Your task to perform on an android device: Search for seafood restaurants on Google Maps Image 0: 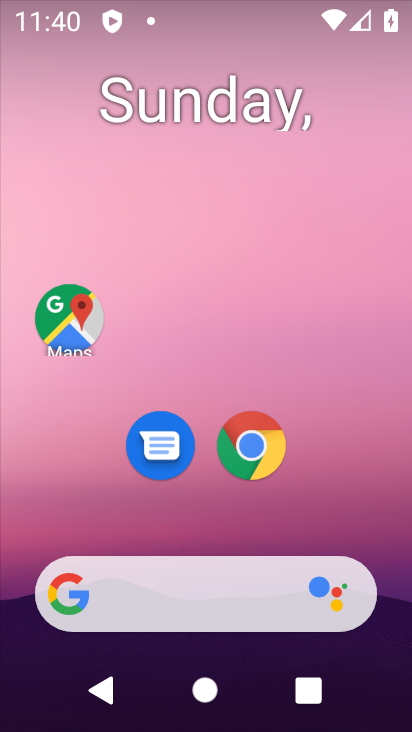
Step 0: click (58, 318)
Your task to perform on an android device: Search for seafood restaurants on Google Maps Image 1: 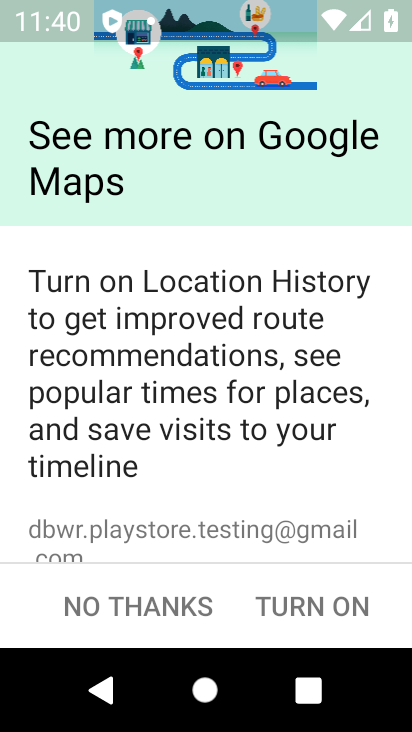
Step 1: click (311, 601)
Your task to perform on an android device: Search for seafood restaurants on Google Maps Image 2: 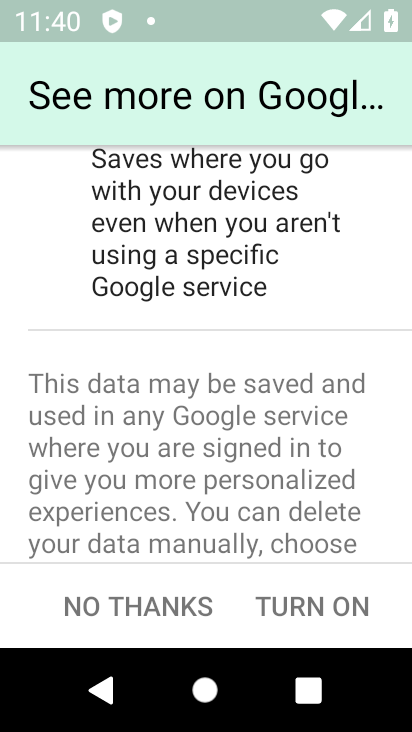
Step 2: click (314, 607)
Your task to perform on an android device: Search for seafood restaurants on Google Maps Image 3: 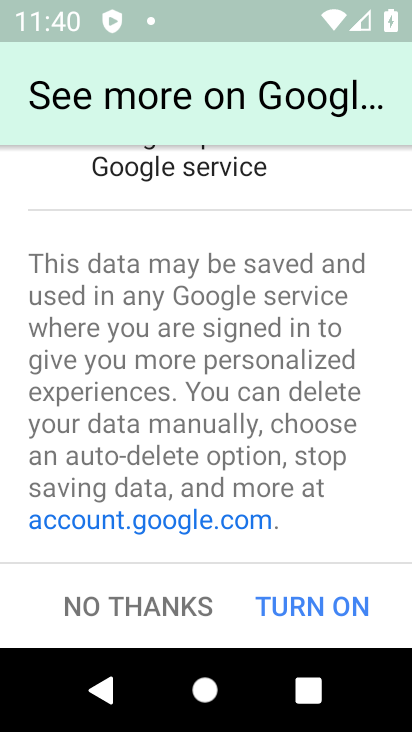
Step 3: click (312, 603)
Your task to perform on an android device: Search for seafood restaurants on Google Maps Image 4: 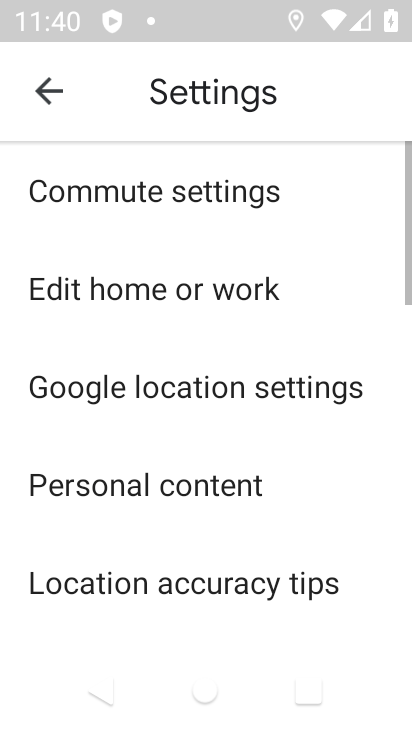
Step 4: click (46, 103)
Your task to perform on an android device: Search for seafood restaurants on Google Maps Image 5: 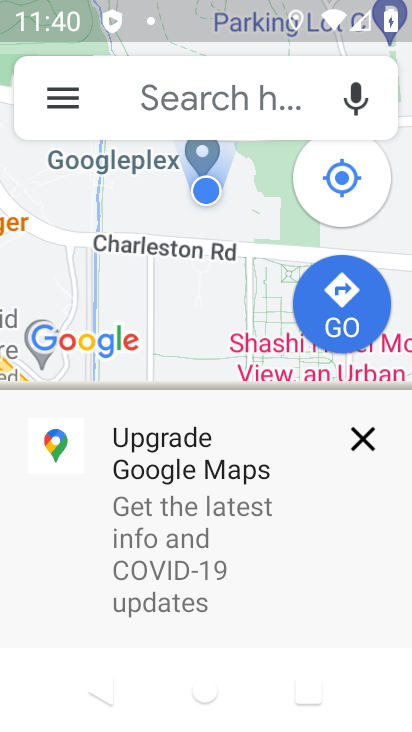
Step 5: click (177, 89)
Your task to perform on an android device: Search for seafood restaurants on Google Maps Image 6: 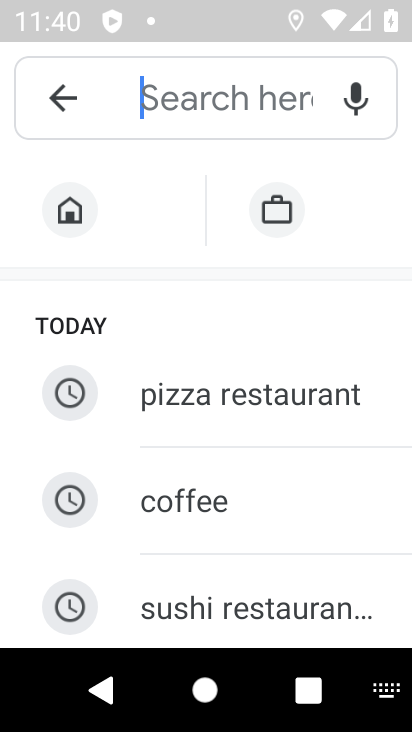
Step 6: drag from (242, 488) to (238, 243)
Your task to perform on an android device: Search for seafood restaurants on Google Maps Image 7: 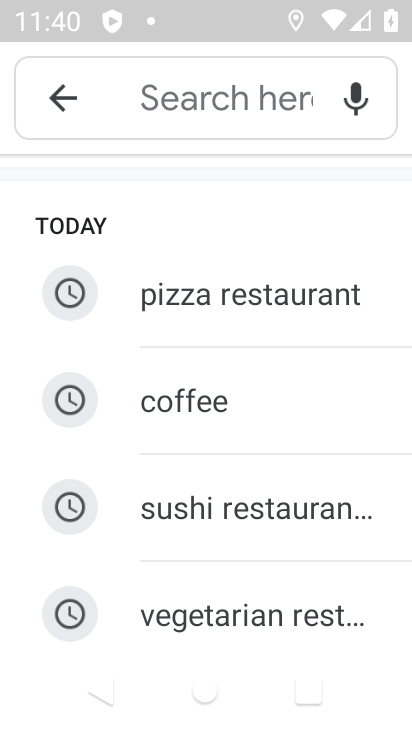
Step 7: drag from (238, 602) to (258, 307)
Your task to perform on an android device: Search for seafood restaurants on Google Maps Image 8: 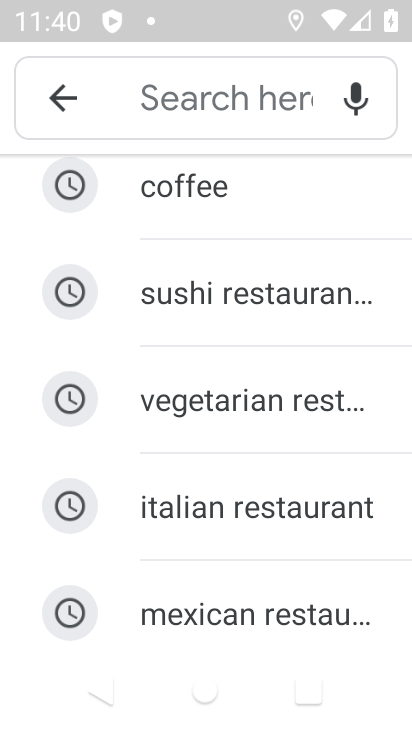
Step 8: drag from (265, 587) to (293, 277)
Your task to perform on an android device: Search for seafood restaurants on Google Maps Image 9: 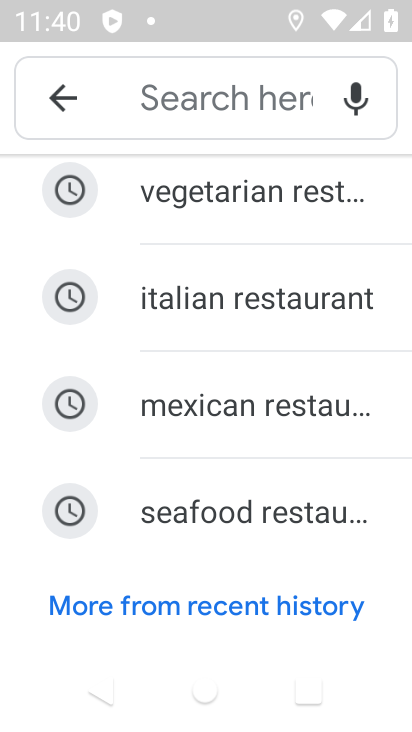
Step 9: click (277, 516)
Your task to perform on an android device: Search for seafood restaurants on Google Maps Image 10: 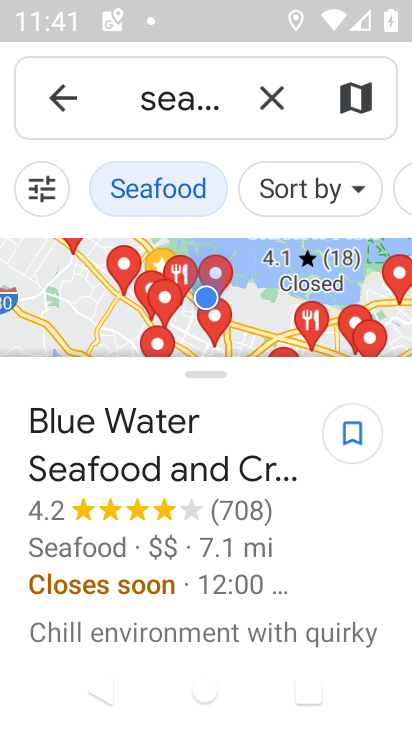
Step 10: task complete